Your task to perform on an android device: toggle data saver in the chrome app Image 0: 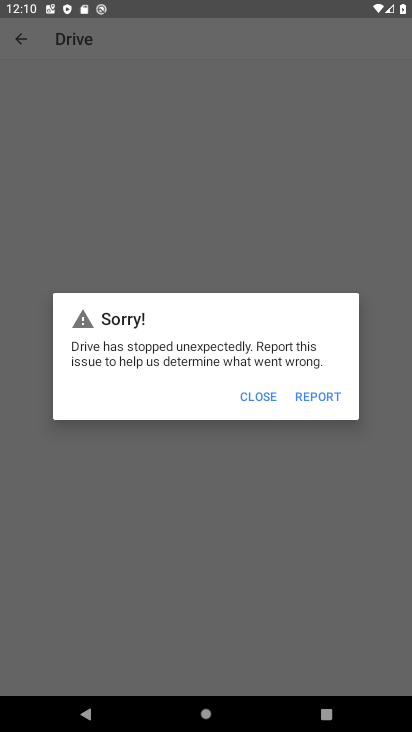
Step 0: press home button
Your task to perform on an android device: toggle data saver in the chrome app Image 1: 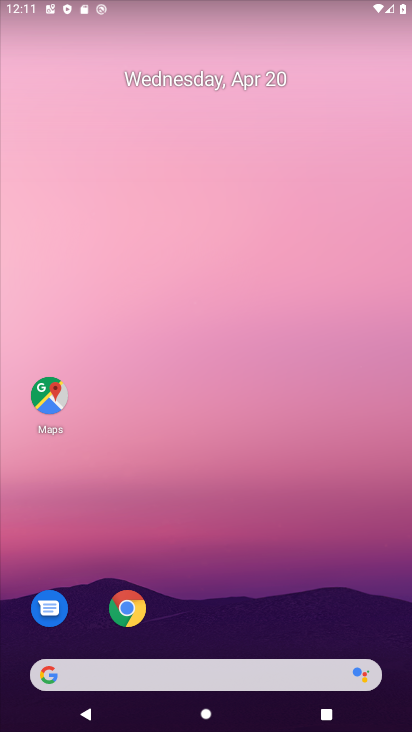
Step 1: click (123, 625)
Your task to perform on an android device: toggle data saver in the chrome app Image 2: 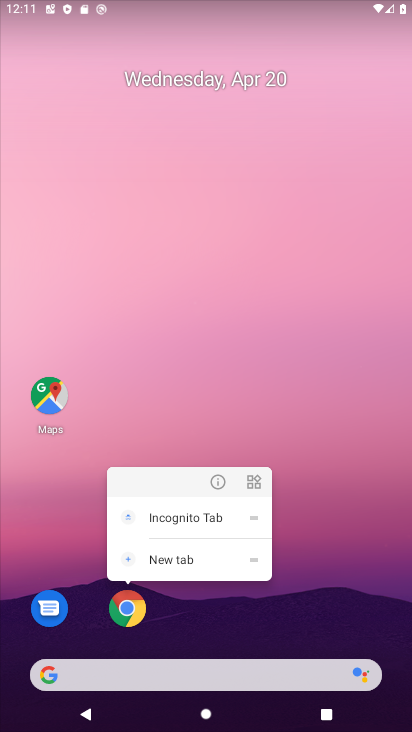
Step 2: click (133, 622)
Your task to perform on an android device: toggle data saver in the chrome app Image 3: 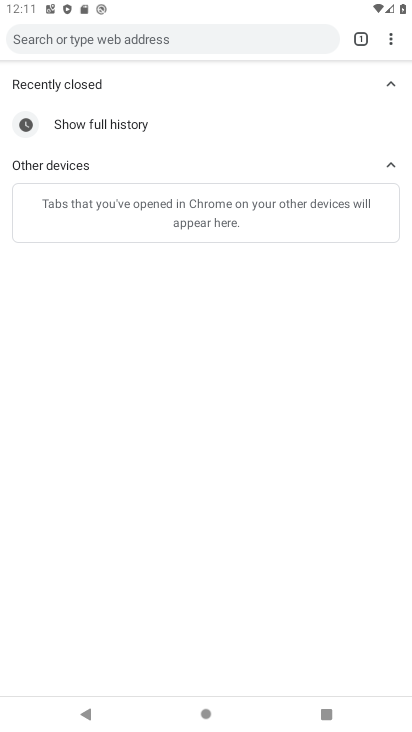
Step 3: click (392, 31)
Your task to perform on an android device: toggle data saver in the chrome app Image 4: 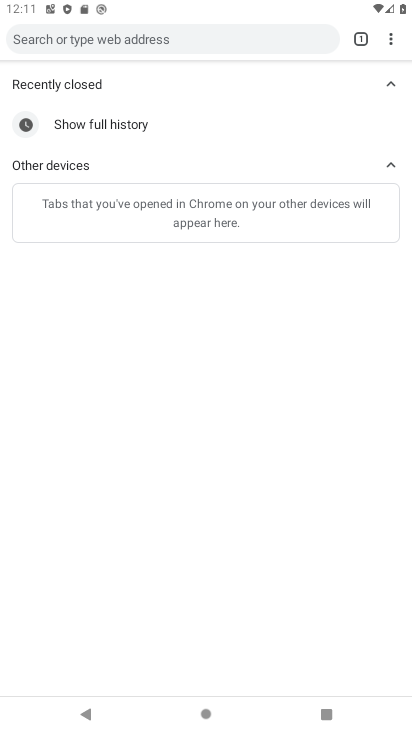
Step 4: click (393, 32)
Your task to perform on an android device: toggle data saver in the chrome app Image 5: 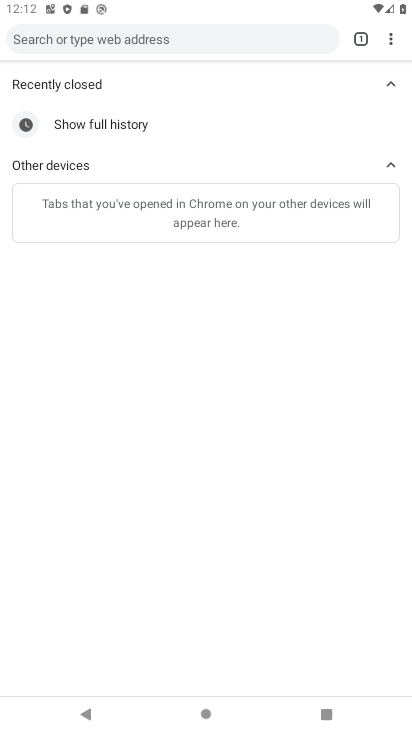
Step 5: click (395, 40)
Your task to perform on an android device: toggle data saver in the chrome app Image 6: 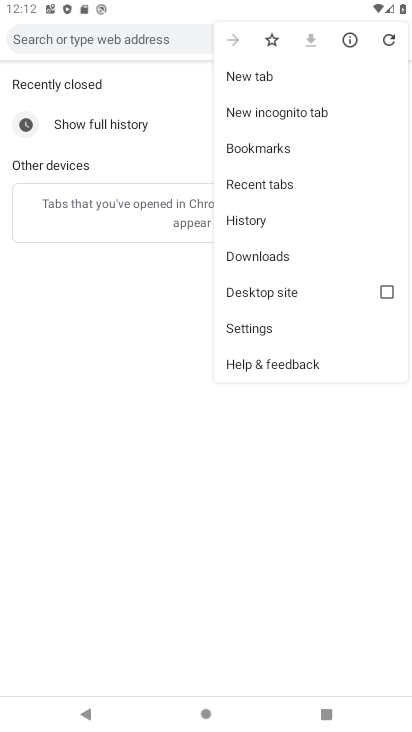
Step 6: click (395, 40)
Your task to perform on an android device: toggle data saver in the chrome app Image 7: 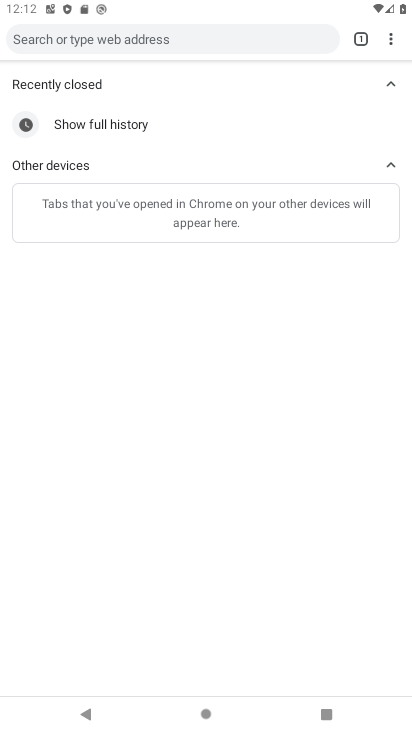
Step 7: click (394, 27)
Your task to perform on an android device: toggle data saver in the chrome app Image 8: 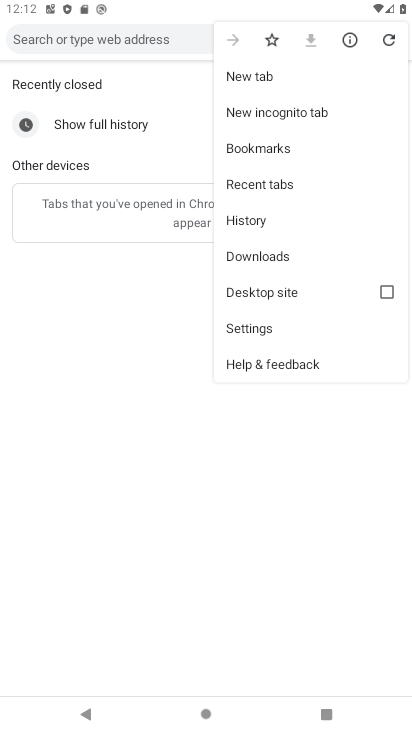
Step 8: click (284, 328)
Your task to perform on an android device: toggle data saver in the chrome app Image 9: 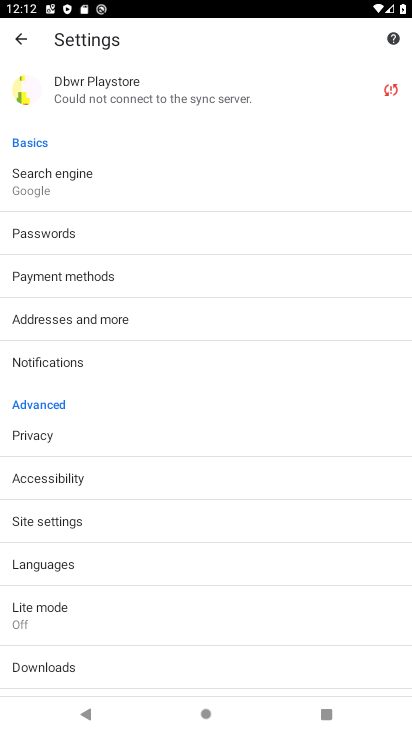
Step 9: click (15, 628)
Your task to perform on an android device: toggle data saver in the chrome app Image 10: 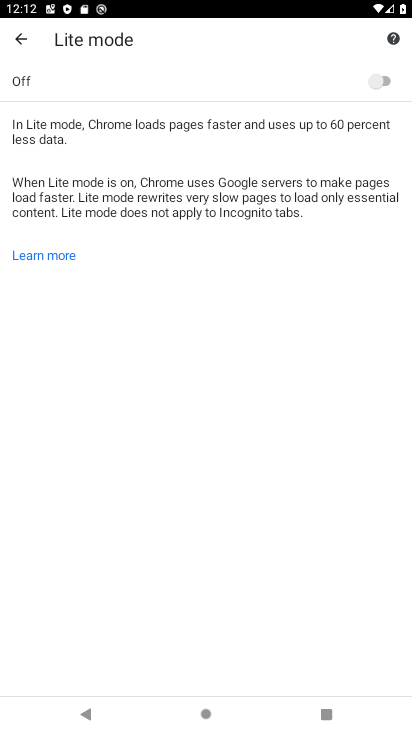
Step 10: click (375, 71)
Your task to perform on an android device: toggle data saver in the chrome app Image 11: 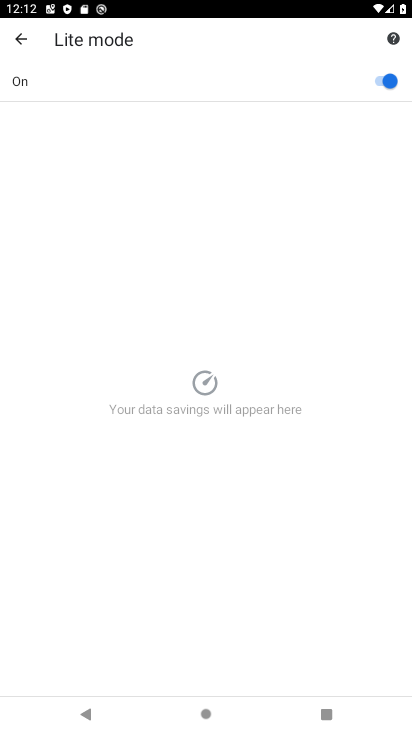
Step 11: task complete